Your task to perform on an android device: toggle translation in the chrome app Image 0: 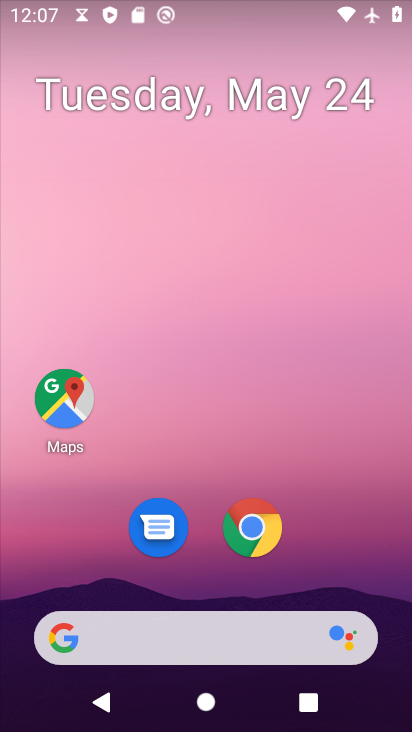
Step 0: press home button
Your task to perform on an android device: toggle translation in the chrome app Image 1: 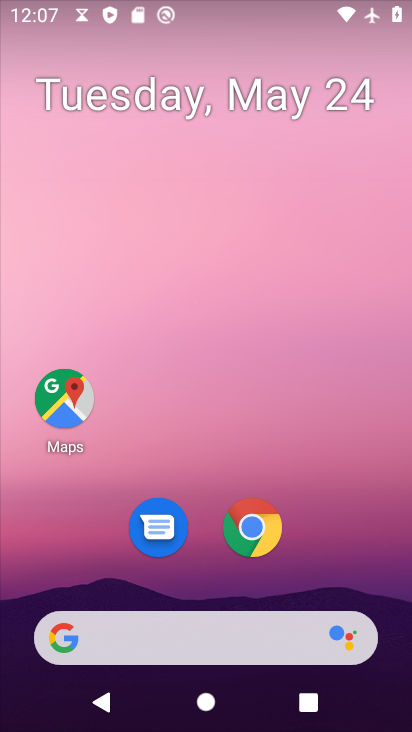
Step 1: click (255, 542)
Your task to perform on an android device: toggle translation in the chrome app Image 2: 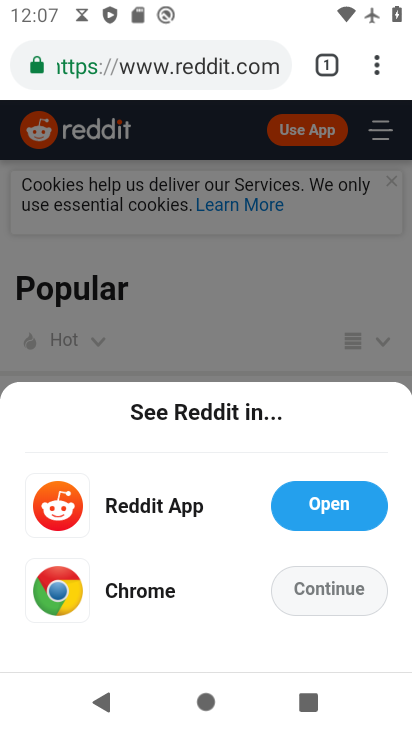
Step 2: drag from (376, 79) to (249, 590)
Your task to perform on an android device: toggle translation in the chrome app Image 3: 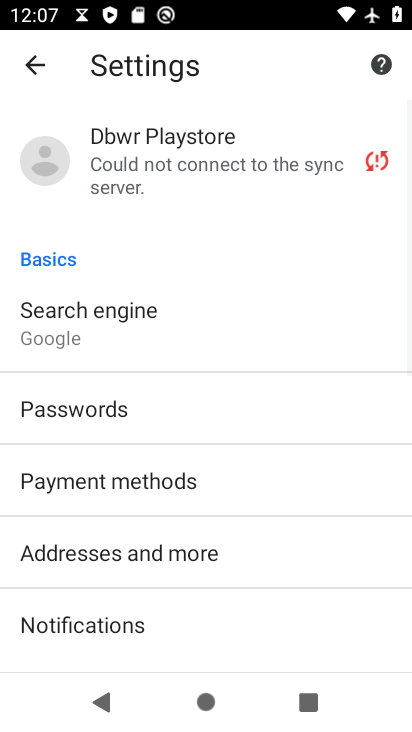
Step 3: drag from (185, 617) to (332, 258)
Your task to perform on an android device: toggle translation in the chrome app Image 4: 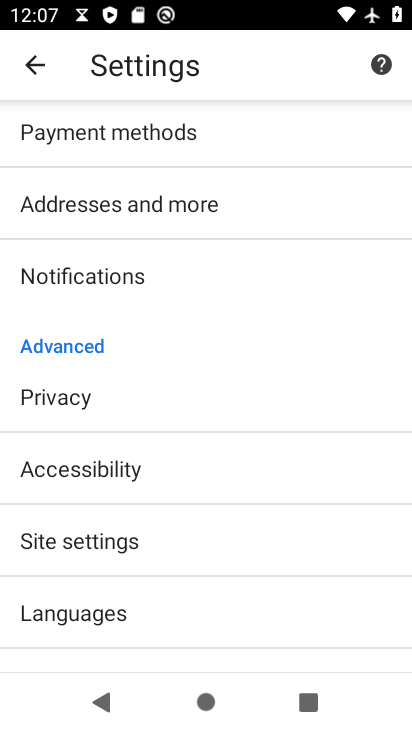
Step 4: click (146, 608)
Your task to perform on an android device: toggle translation in the chrome app Image 5: 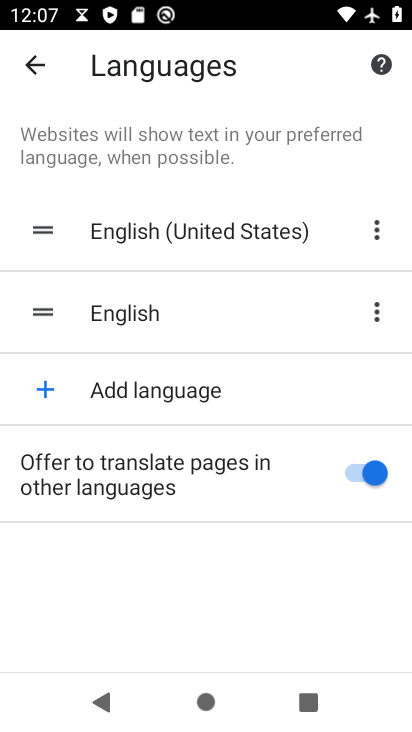
Step 5: click (348, 468)
Your task to perform on an android device: toggle translation in the chrome app Image 6: 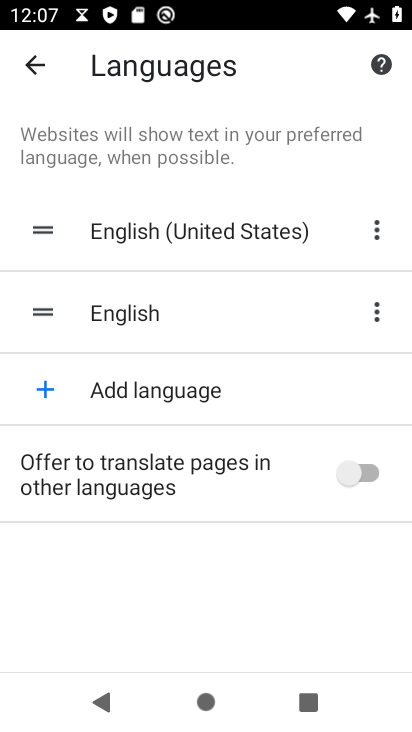
Step 6: task complete